Your task to perform on an android device: What's on my calendar today? Image 0: 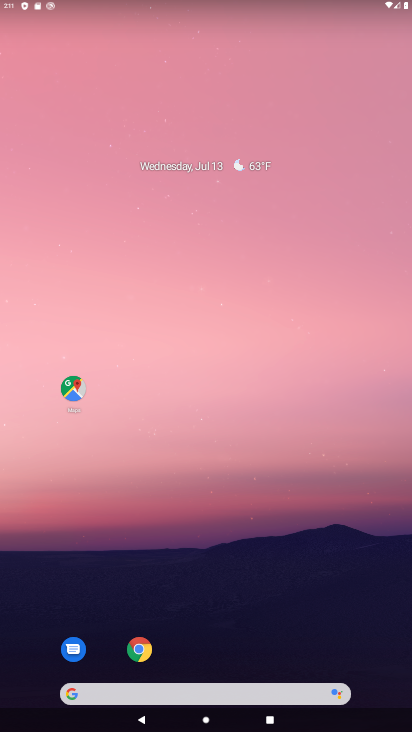
Step 0: drag from (285, 637) to (223, 156)
Your task to perform on an android device: What's on my calendar today? Image 1: 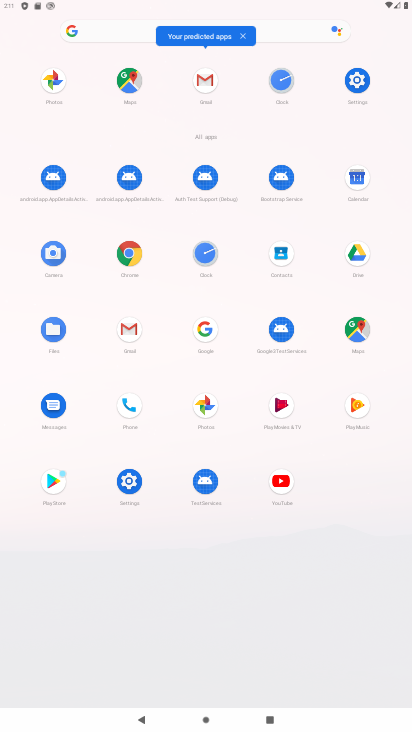
Step 1: click (362, 183)
Your task to perform on an android device: What's on my calendar today? Image 2: 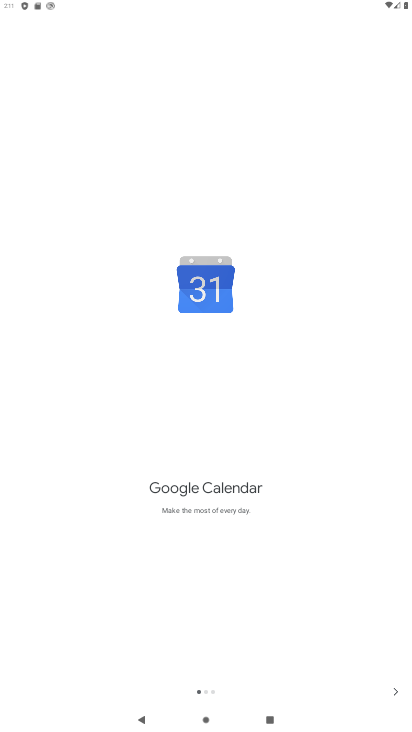
Step 2: click (392, 694)
Your task to perform on an android device: What's on my calendar today? Image 3: 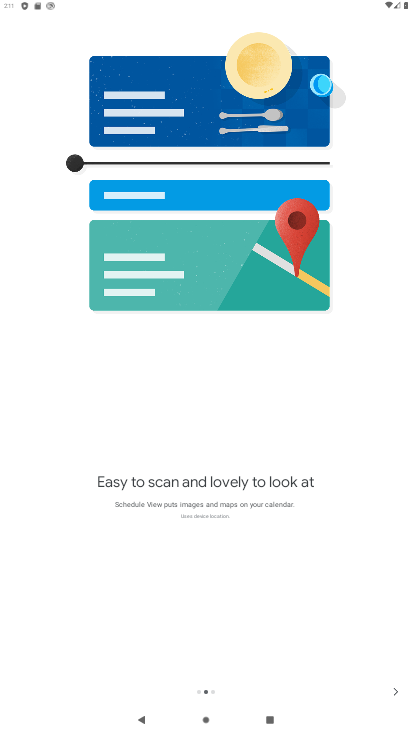
Step 3: click (392, 694)
Your task to perform on an android device: What's on my calendar today? Image 4: 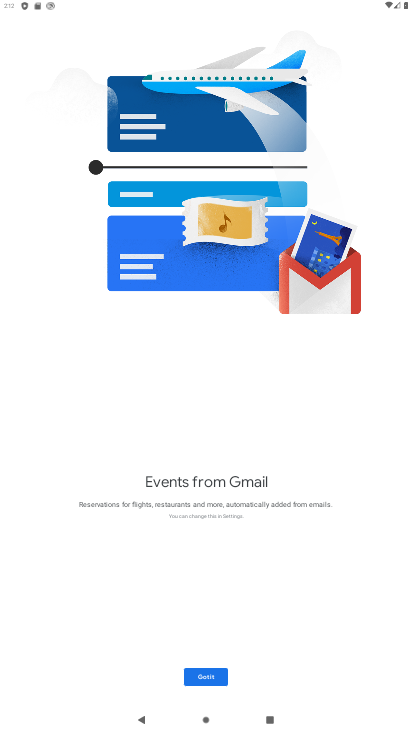
Step 4: click (213, 683)
Your task to perform on an android device: What's on my calendar today? Image 5: 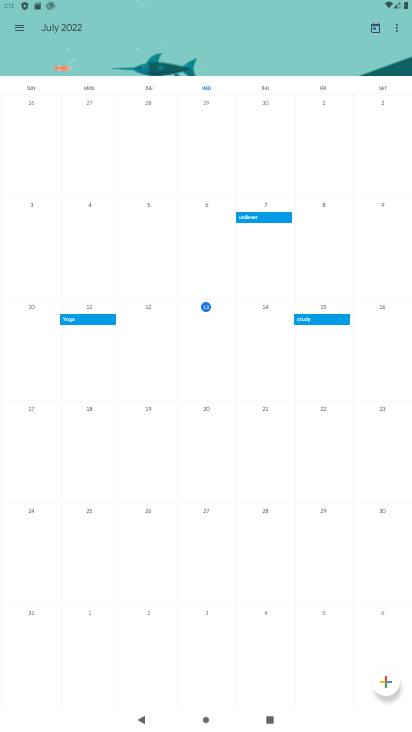
Step 5: click (21, 30)
Your task to perform on an android device: What's on my calendar today? Image 6: 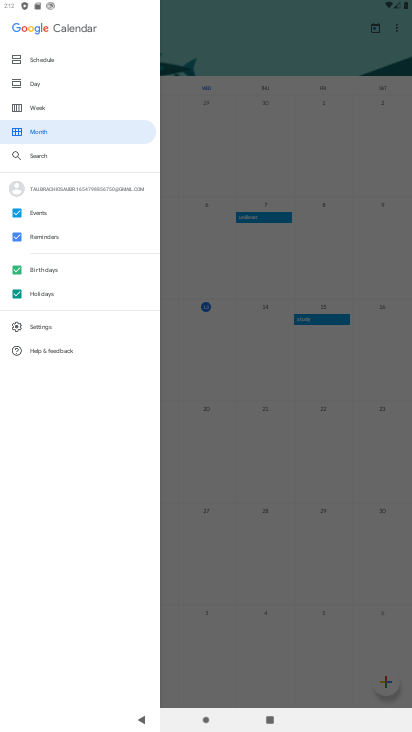
Step 6: click (49, 84)
Your task to perform on an android device: What's on my calendar today? Image 7: 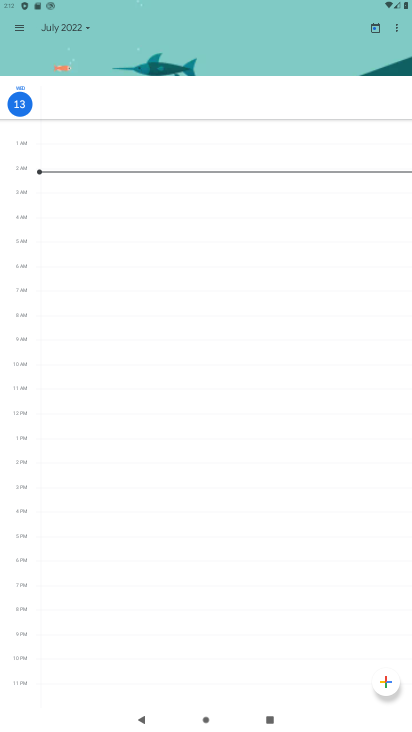
Step 7: task complete